Your task to perform on an android device: Open notification settings Image 0: 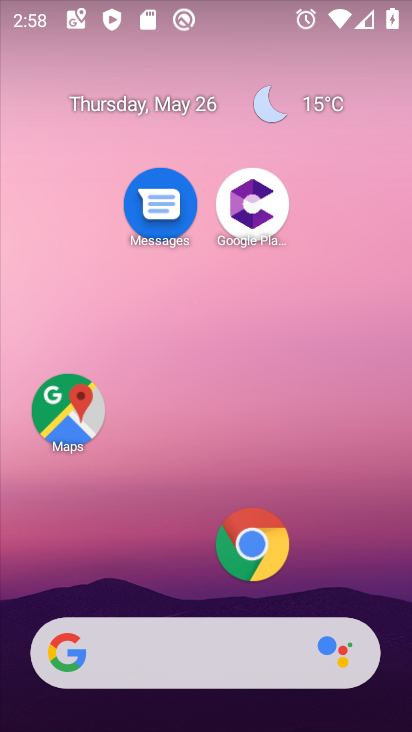
Step 0: drag from (139, 610) to (151, 234)
Your task to perform on an android device: Open notification settings Image 1: 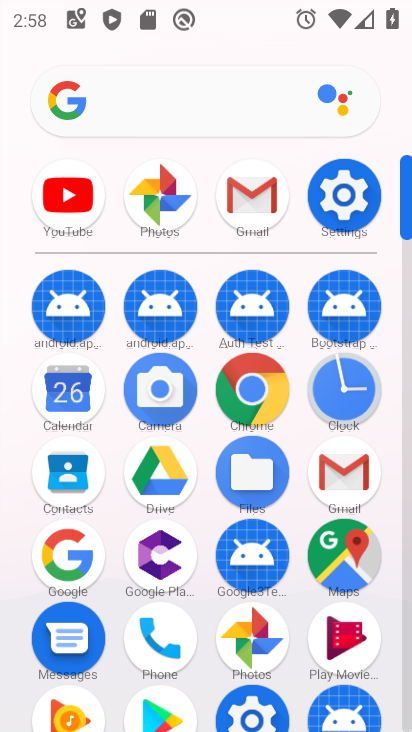
Step 1: click (336, 210)
Your task to perform on an android device: Open notification settings Image 2: 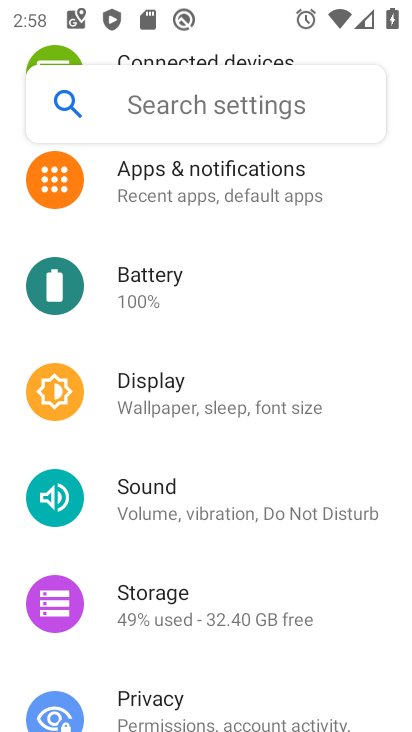
Step 2: drag from (192, 644) to (226, 544)
Your task to perform on an android device: Open notification settings Image 3: 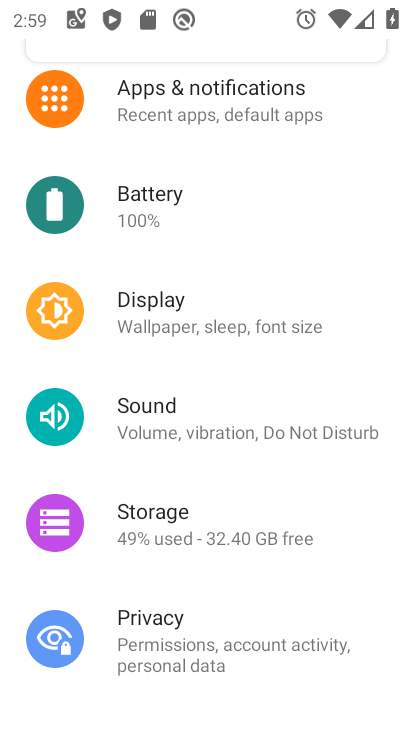
Step 3: click (177, 101)
Your task to perform on an android device: Open notification settings Image 4: 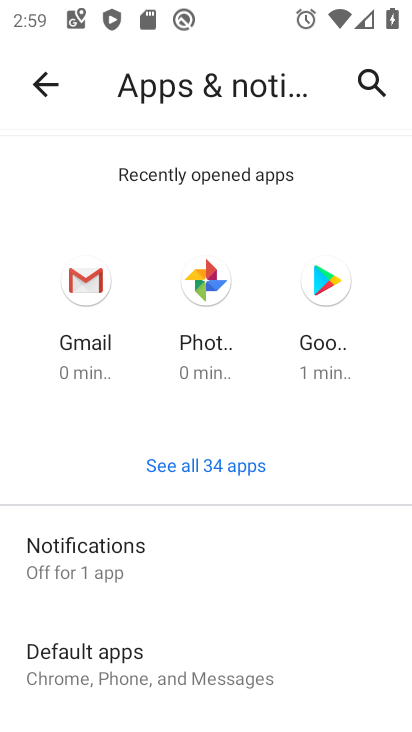
Step 4: task complete